Your task to perform on an android device: Search for sushi restaurants on Maps Image 0: 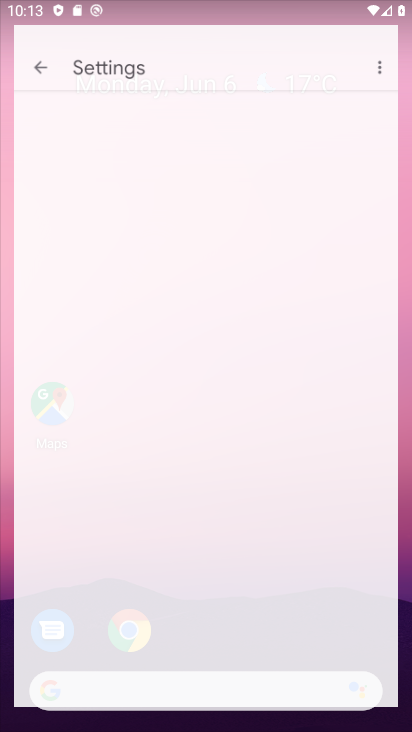
Step 0: press home button
Your task to perform on an android device: Search for sushi restaurants on Maps Image 1: 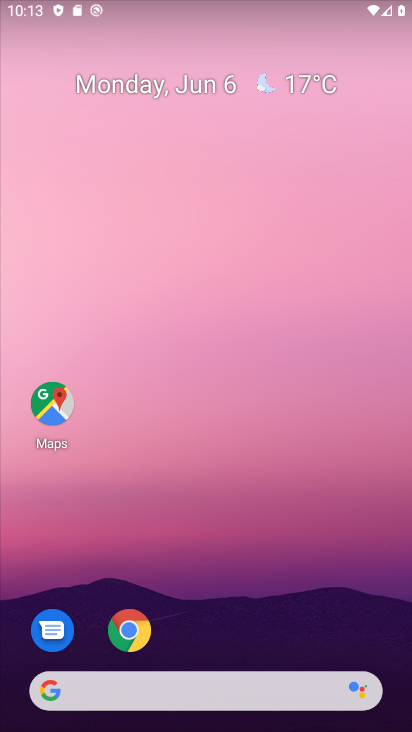
Step 1: drag from (361, 611) to (336, 167)
Your task to perform on an android device: Search for sushi restaurants on Maps Image 2: 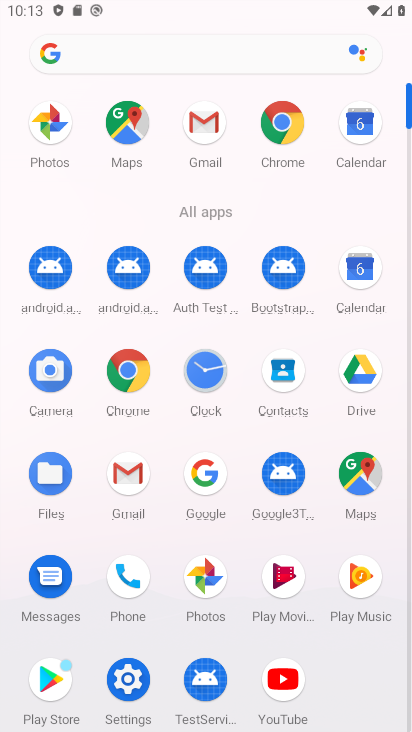
Step 2: click (353, 484)
Your task to perform on an android device: Search for sushi restaurants on Maps Image 3: 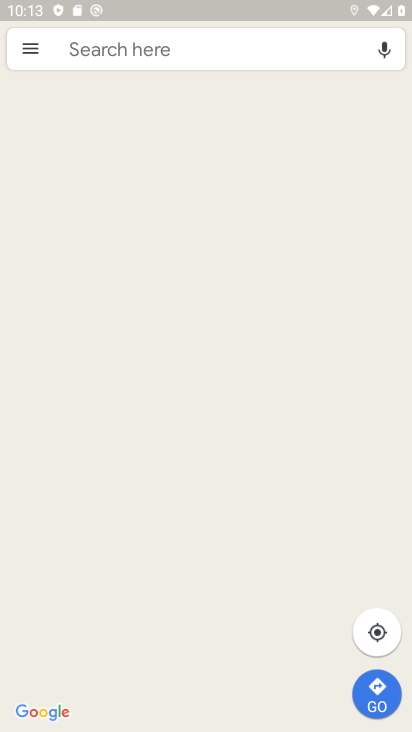
Step 3: click (137, 47)
Your task to perform on an android device: Search for sushi restaurants on Maps Image 4: 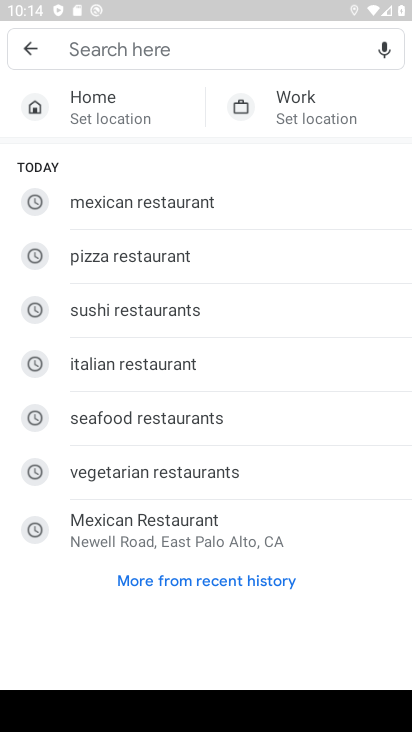
Step 4: type "sushi restaurants"
Your task to perform on an android device: Search for sushi restaurants on Maps Image 5: 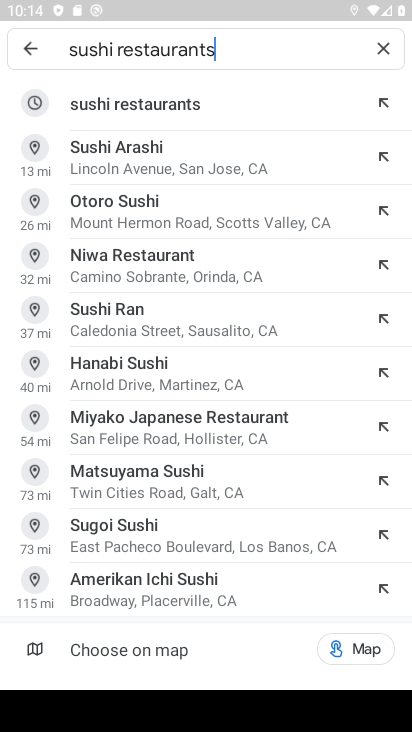
Step 5: click (201, 109)
Your task to perform on an android device: Search for sushi restaurants on Maps Image 6: 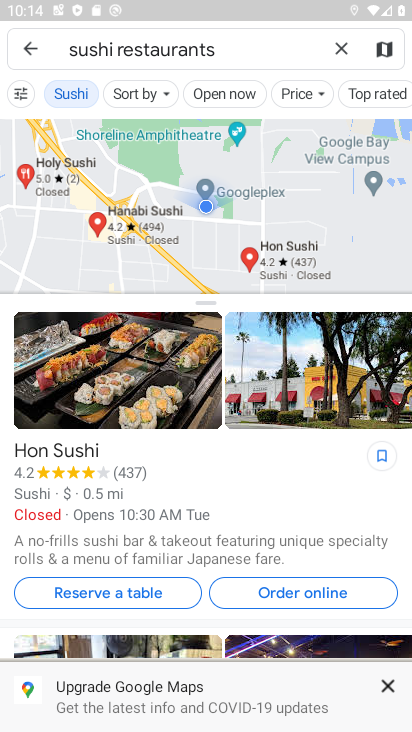
Step 6: task complete